Your task to perform on an android device: Open Google Maps and go to "Timeline" Image 0: 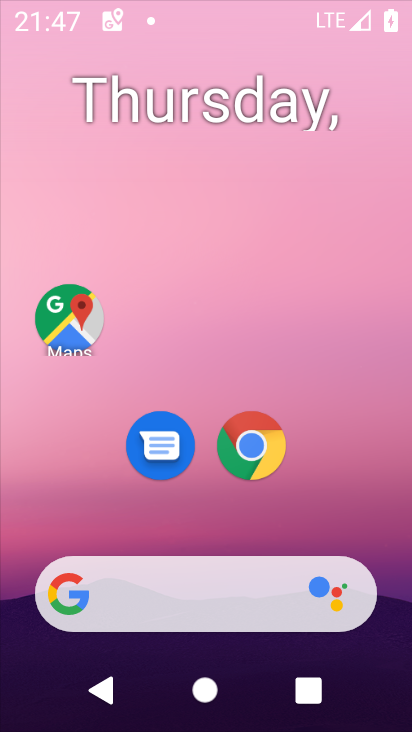
Step 0: click (349, 61)
Your task to perform on an android device: Open Google Maps and go to "Timeline" Image 1: 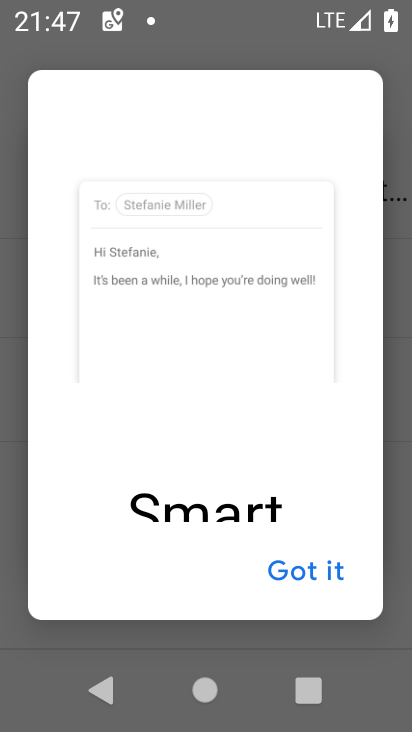
Step 1: press home button
Your task to perform on an android device: Open Google Maps and go to "Timeline" Image 2: 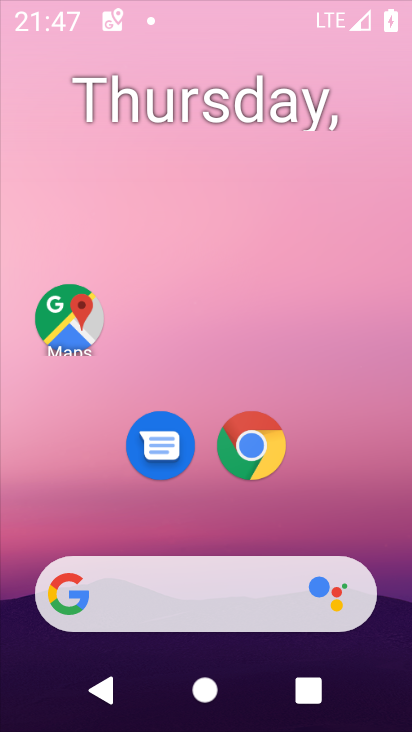
Step 2: drag from (244, 517) to (274, 134)
Your task to perform on an android device: Open Google Maps and go to "Timeline" Image 3: 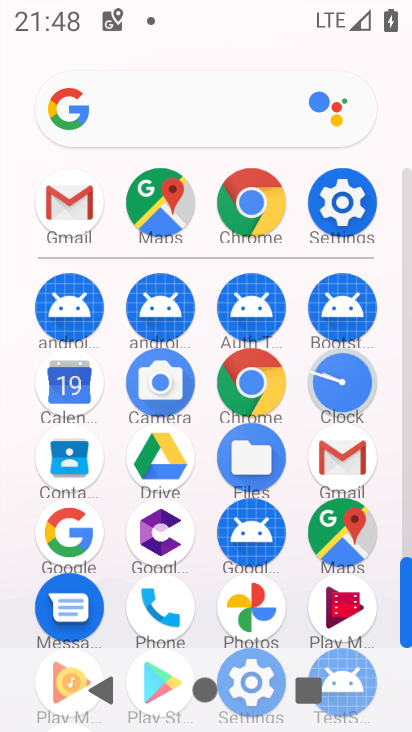
Step 3: click (326, 524)
Your task to perform on an android device: Open Google Maps and go to "Timeline" Image 4: 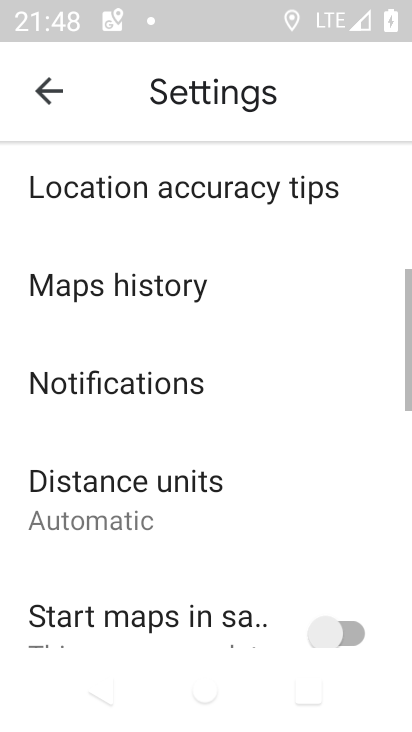
Step 4: click (54, 103)
Your task to perform on an android device: Open Google Maps and go to "Timeline" Image 5: 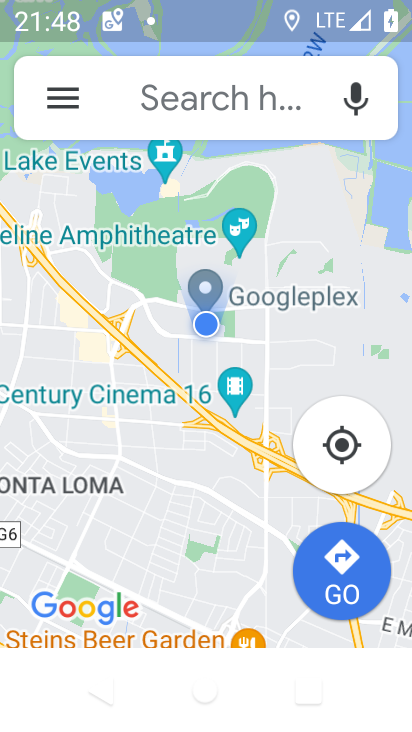
Step 5: click (53, 102)
Your task to perform on an android device: Open Google Maps and go to "Timeline" Image 6: 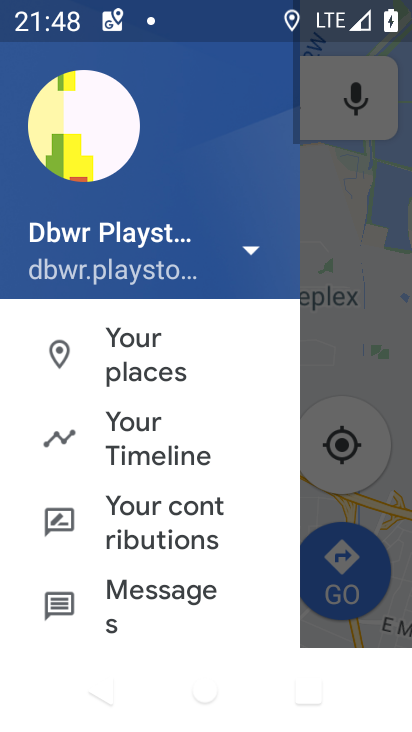
Step 6: drag from (124, 504) to (162, 164)
Your task to perform on an android device: Open Google Maps and go to "Timeline" Image 7: 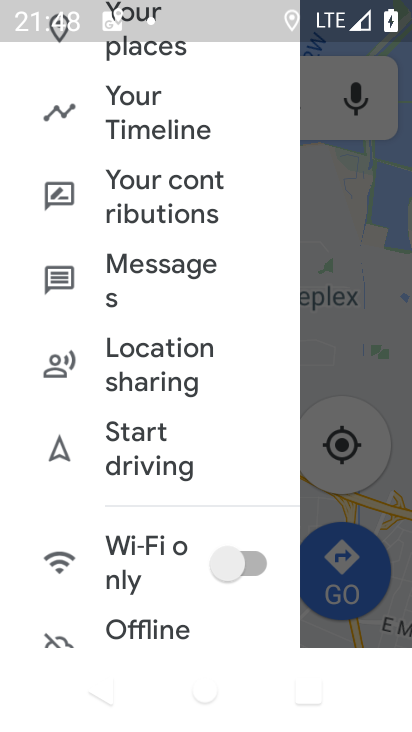
Step 7: drag from (154, 156) to (149, 369)
Your task to perform on an android device: Open Google Maps and go to "Timeline" Image 8: 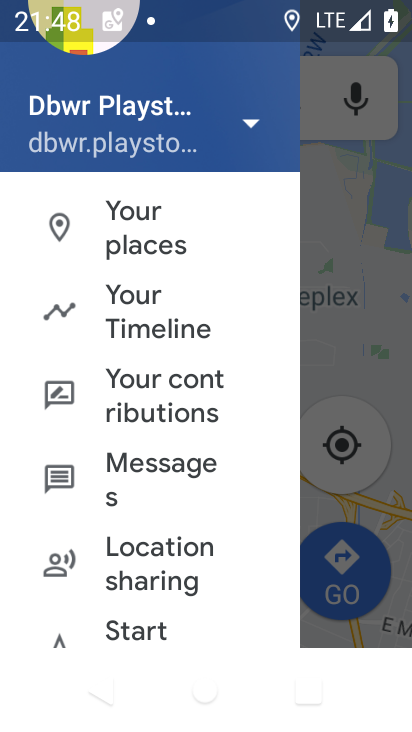
Step 8: click (138, 301)
Your task to perform on an android device: Open Google Maps and go to "Timeline" Image 9: 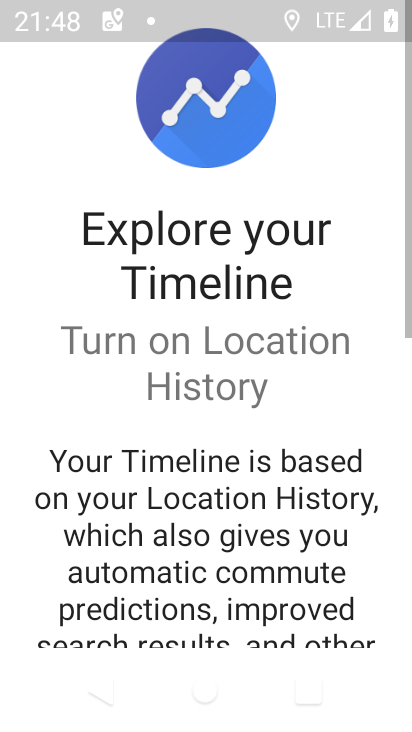
Step 9: drag from (233, 490) to (302, 105)
Your task to perform on an android device: Open Google Maps and go to "Timeline" Image 10: 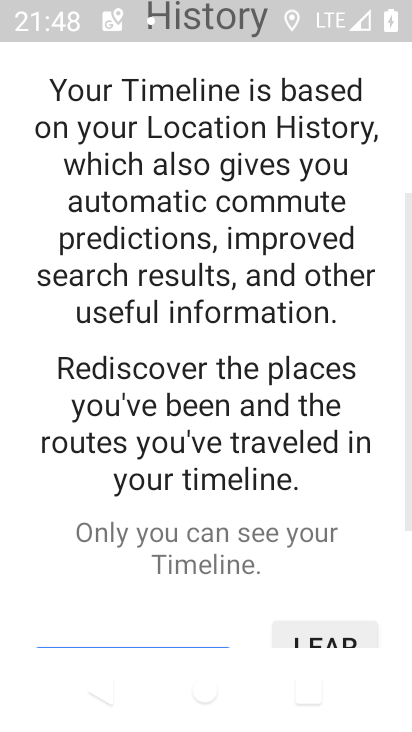
Step 10: drag from (267, 521) to (345, 155)
Your task to perform on an android device: Open Google Maps and go to "Timeline" Image 11: 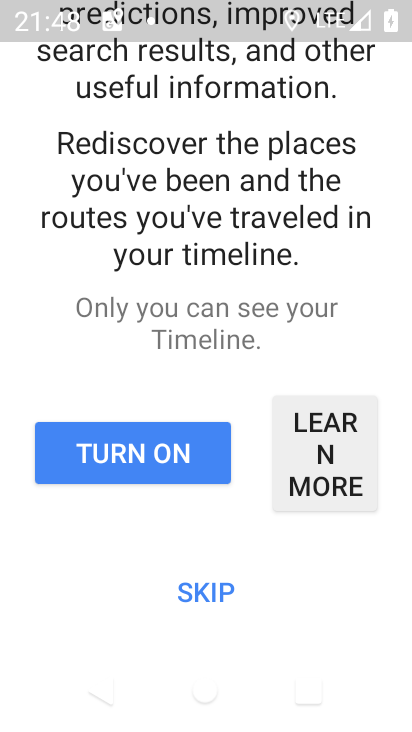
Step 11: click (176, 455)
Your task to perform on an android device: Open Google Maps and go to "Timeline" Image 12: 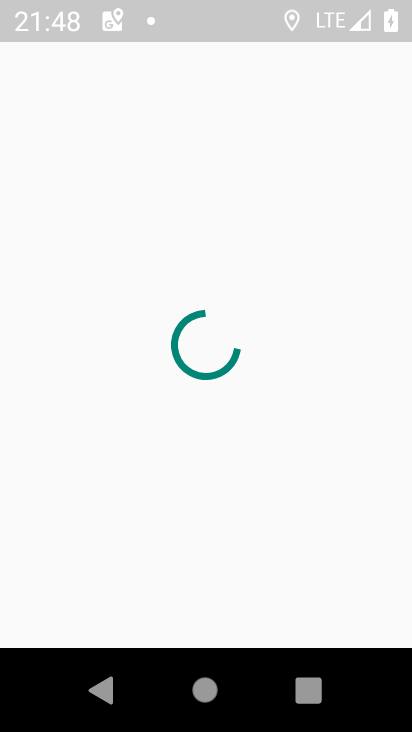
Step 12: task complete